Your task to perform on an android device: see sites visited before in the chrome app Image 0: 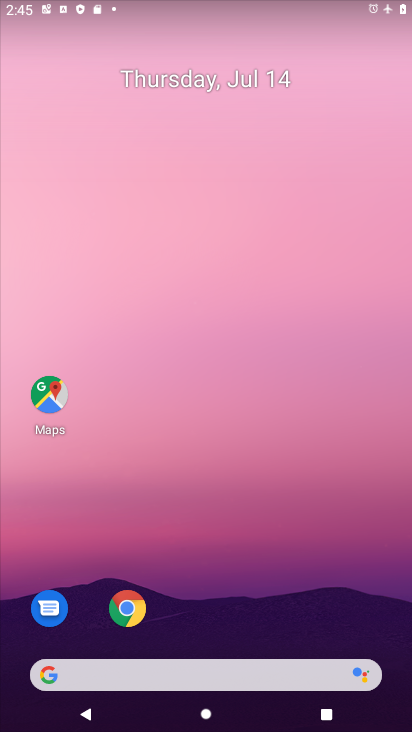
Step 0: click (125, 606)
Your task to perform on an android device: see sites visited before in the chrome app Image 1: 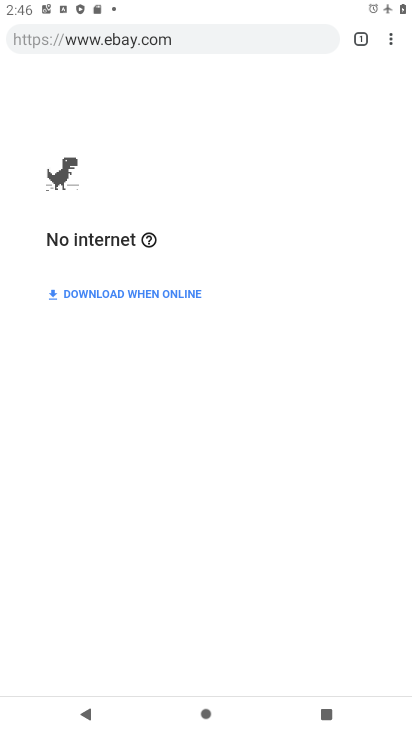
Step 1: click (391, 42)
Your task to perform on an android device: see sites visited before in the chrome app Image 2: 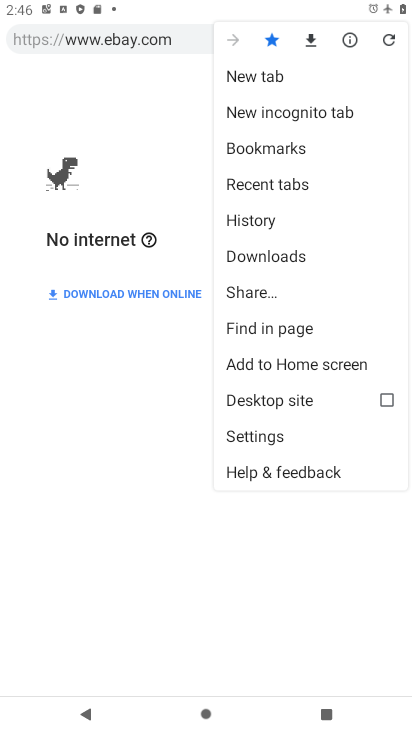
Step 2: click (251, 215)
Your task to perform on an android device: see sites visited before in the chrome app Image 3: 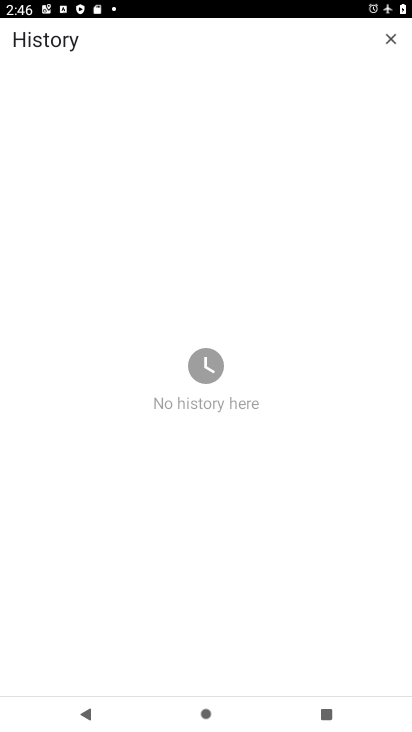
Step 3: task complete